Your task to perform on an android device: set an alarm Image 0: 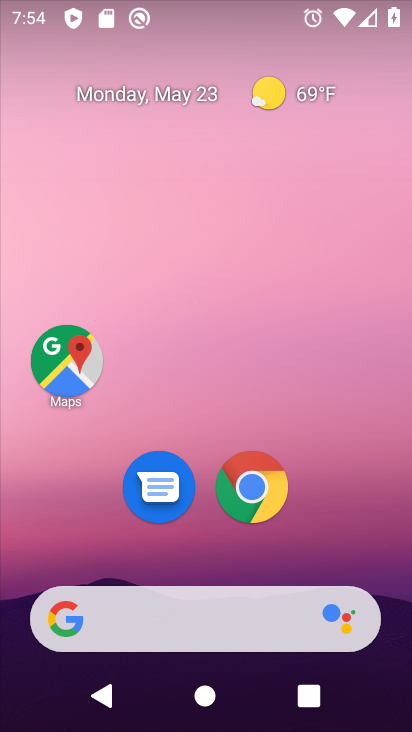
Step 0: drag from (321, 486) to (24, 38)
Your task to perform on an android device: set an alarm Image 1: 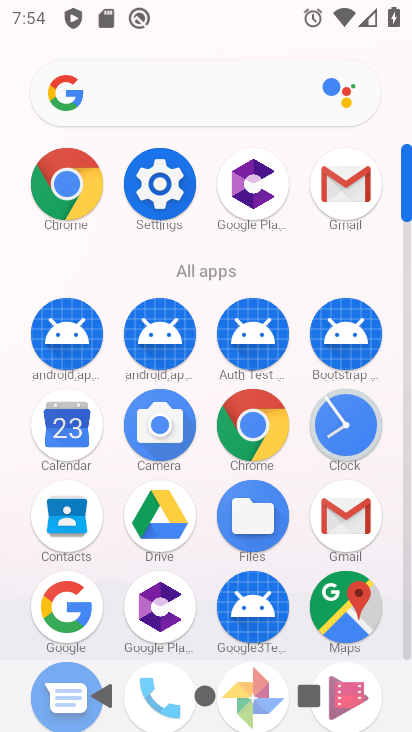
Step 1: drag from (10, 592) to (10, 191)
Your task to perform on an android device: set an alarm Image 2: 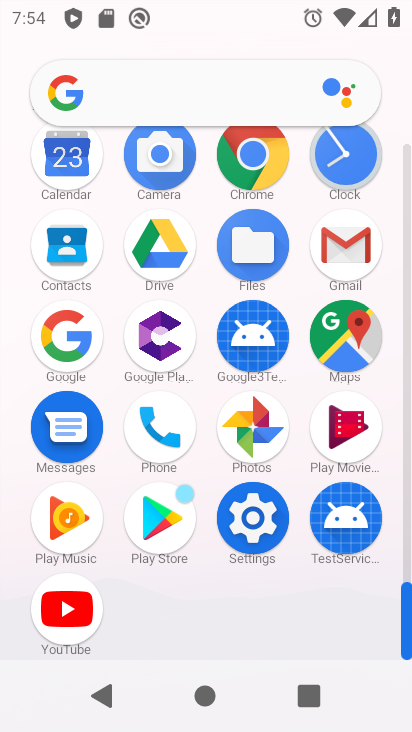
Step 2: click (345, 153)
Your task to perform on an android device: set an alarm Image 3: 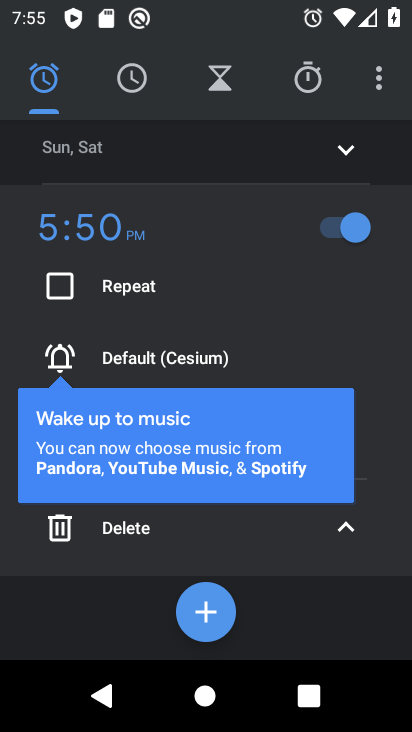
Step 3: task complete